Your task to perform on an android device: What's on my calendar tomorrow? Image 0: 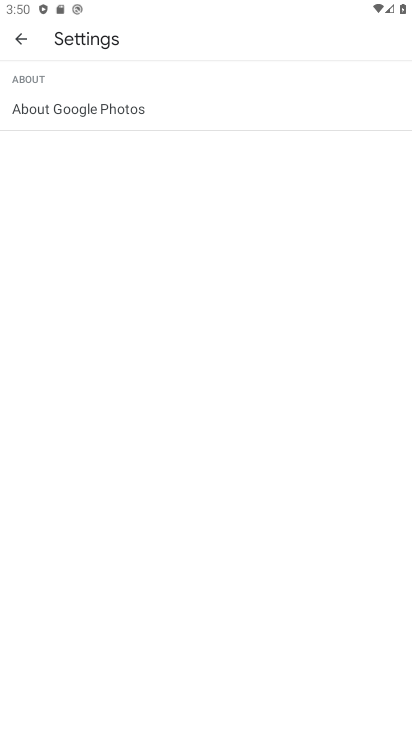
Step 0: press home button
Your task to perform on an android device: What's on my calendar tomorrow? Image 1: 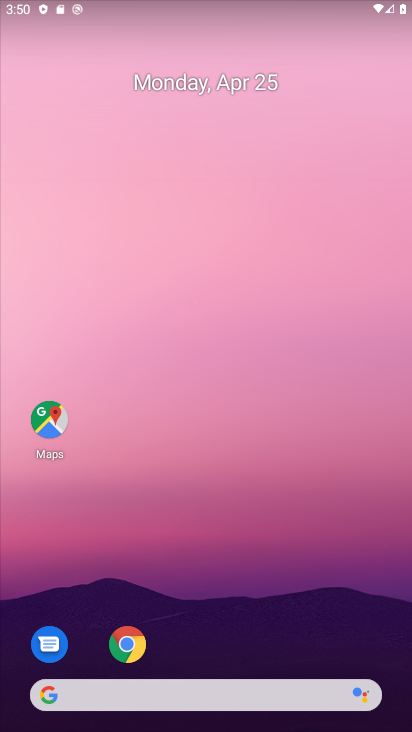
Step 1: drag from (212, 541) to (272, 211)
Your task to perform on an android device: What's on my calendar tomorrow? Image 2: 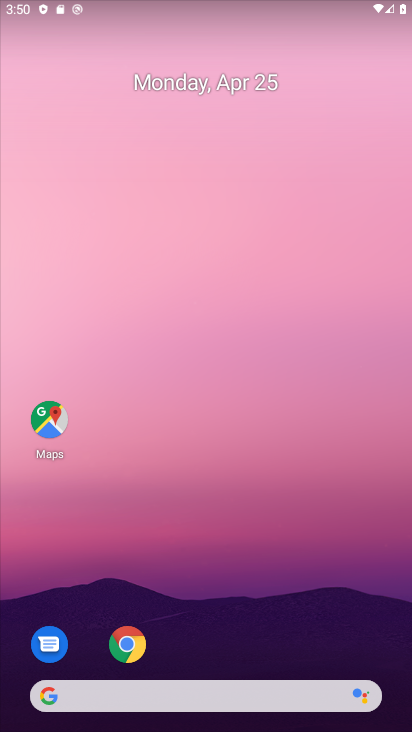
Step 2: drag from (210, 648) to (256, 108)
Your task to perform on an android device: What's on my calendar tomorrow? Image 3: 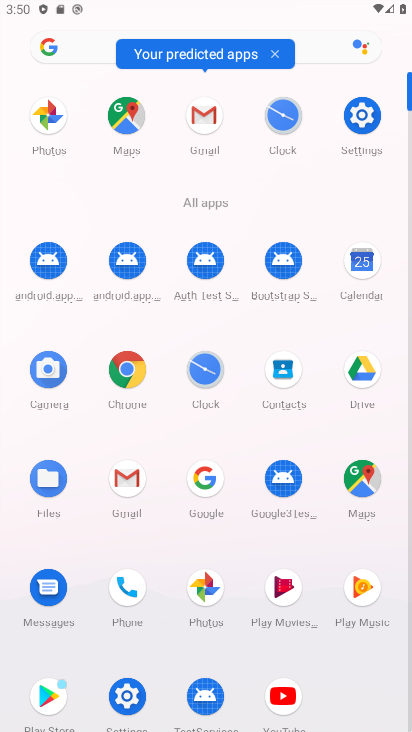
Step 3: click (369, 254)
Your task to perform on an android device: What's on my calendar tomorrow? Image 4: 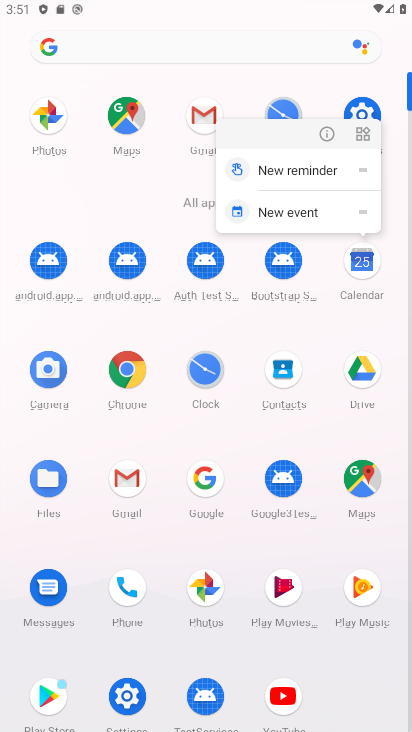
Step 4: click (350, 262)
Your task to perform on an android device: What's on my calendar tomorrow? Image 5: 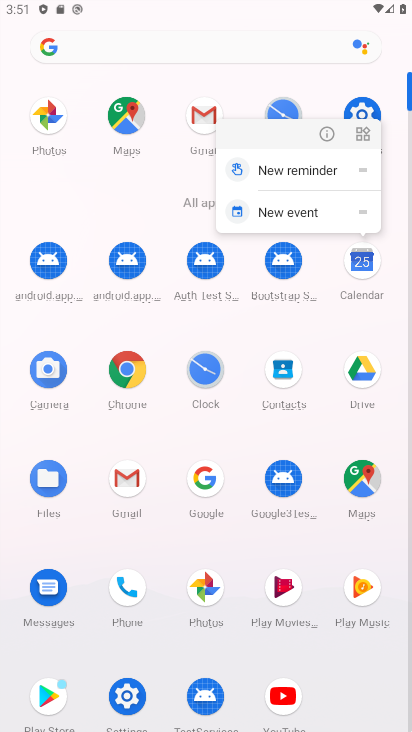
Step 5: click (350, 262)
Your task to perform on an android device: What's on my calendar tomorrow? Image 6: 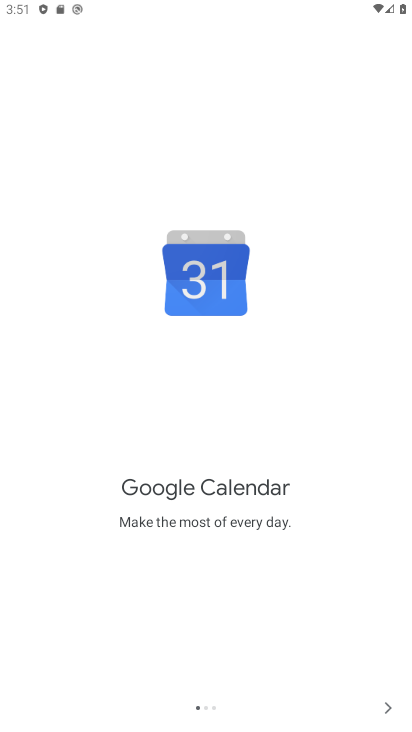
Step 6: click (382, 696)
Your task to perform on an android device: What's on my calendar tomorrow? Image 7: 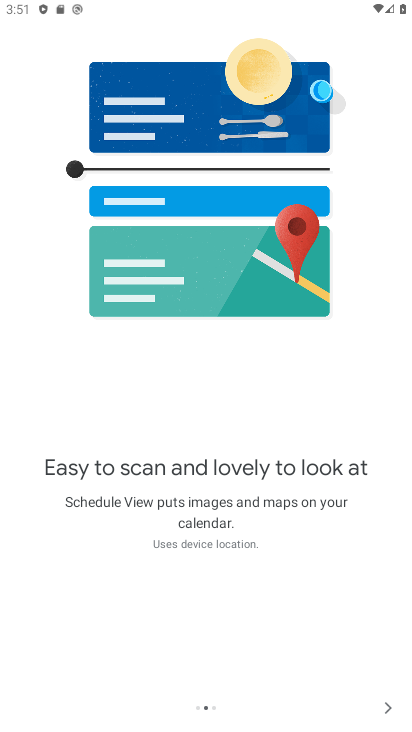
Step 7: click (384, 695)
Your task to perform on an android device: What's on my calendar tomorrow? Image 8: 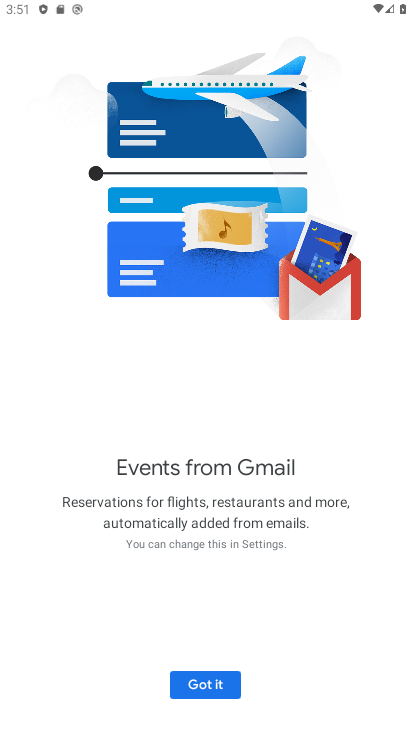
Step 8: click (228, 684)
Your task to perform on an android device: What's on my calendar tomorrow? Image 9: 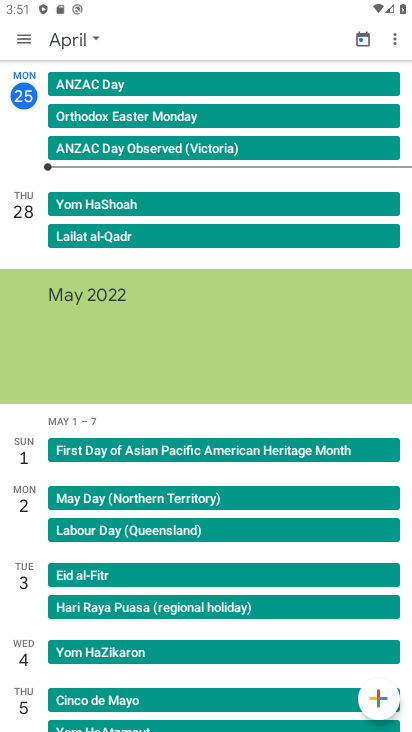
Step 9: click (82, 42)
Your task to perform on an android device: What's on my calendar tomorrow? Image 10: 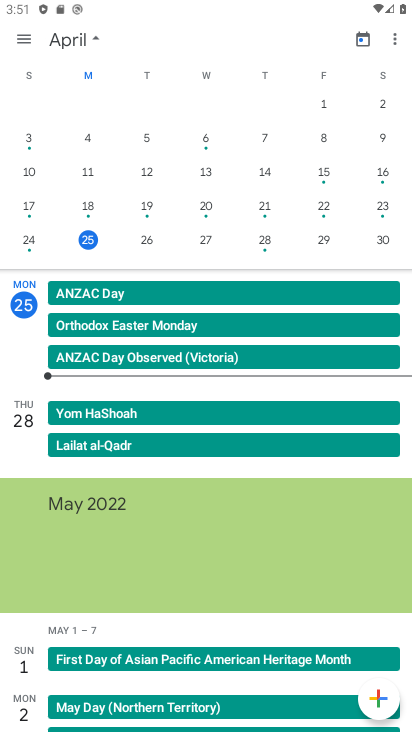
Step 10: click (143, 241)
Your task to perform on an android device: What's on my calendar tomorrow? Image 11: 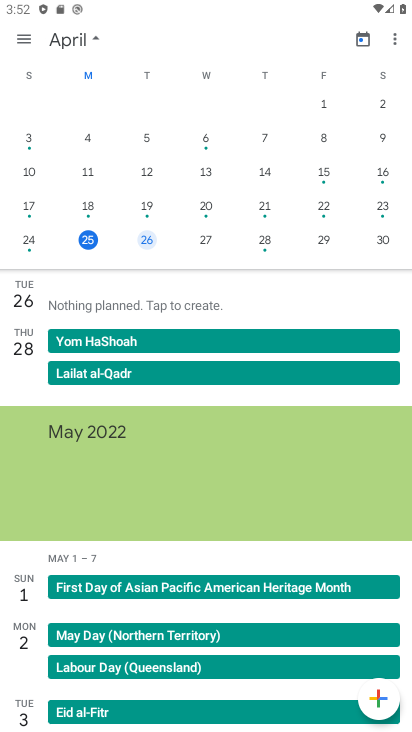
Step 11: click (141, 246)
Your task to perform on an android device: What's on my calendar tomorrow? Image 12: 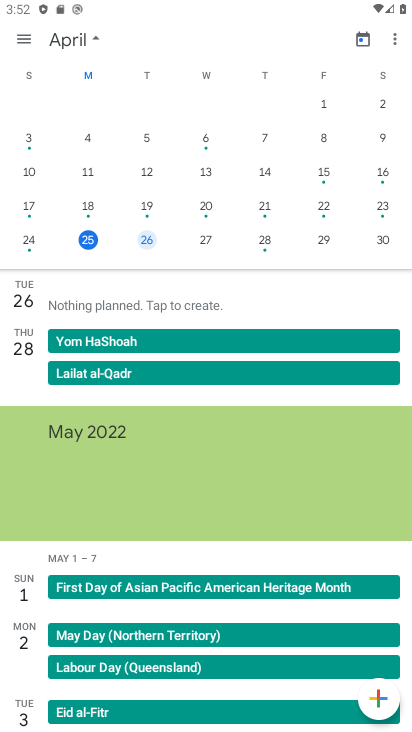
Step 12: task complete